Your task to perform on an android device: manage bookmarks in the chrome app Image 0: 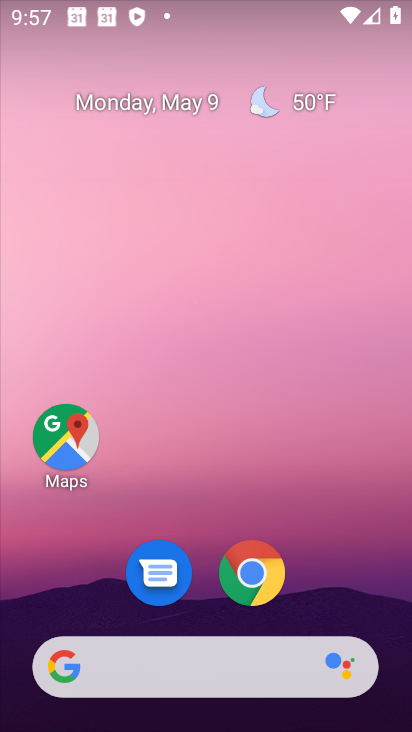
Step 0: click (259, 578)
Your task to perform on an android device: manage bookmarks in the chrome app Image 1: 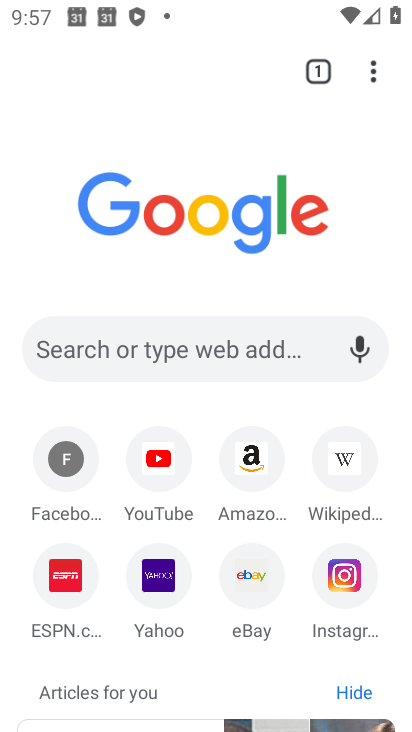
Step 1: drag from (378, 57) to (156, 276)
Your task to perform on an android device: manage bookmarks in the chrome app Image 2: 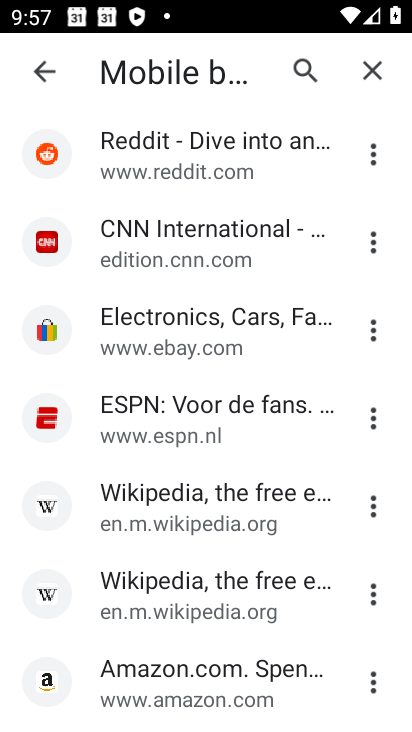
Step 2: click (377, 155)
Your task to perform on an android device: manage bookmarks in the chrome app Image 3: 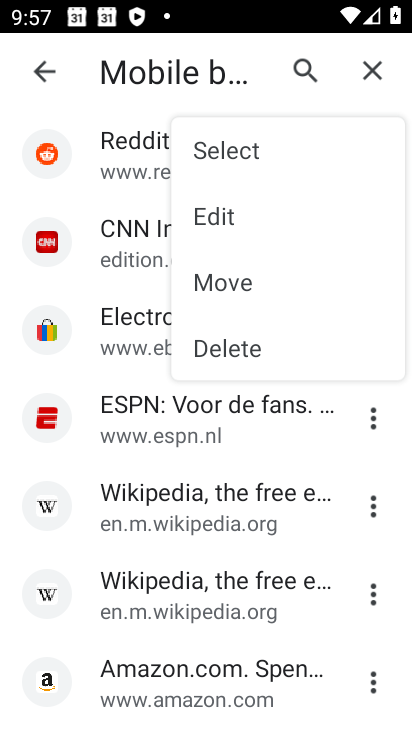
Step 3: click (226, 349)
Your task to perform on an android device: manage bookmarks in the chrome app Image 4: 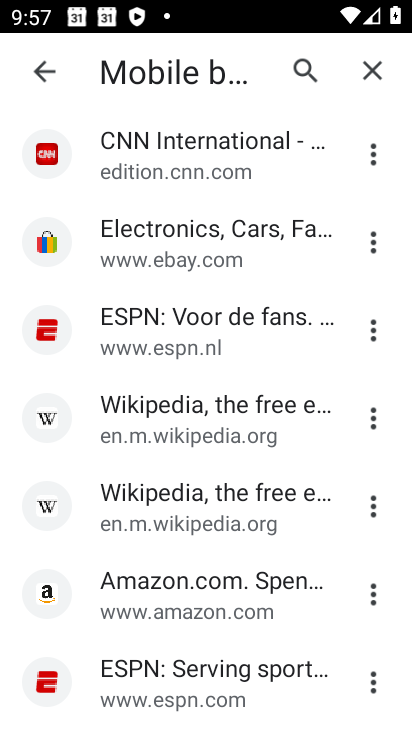
Step 4: task complete